Your task to perform on an android device: Open calendar and show me the fourth week of next month Image 0: 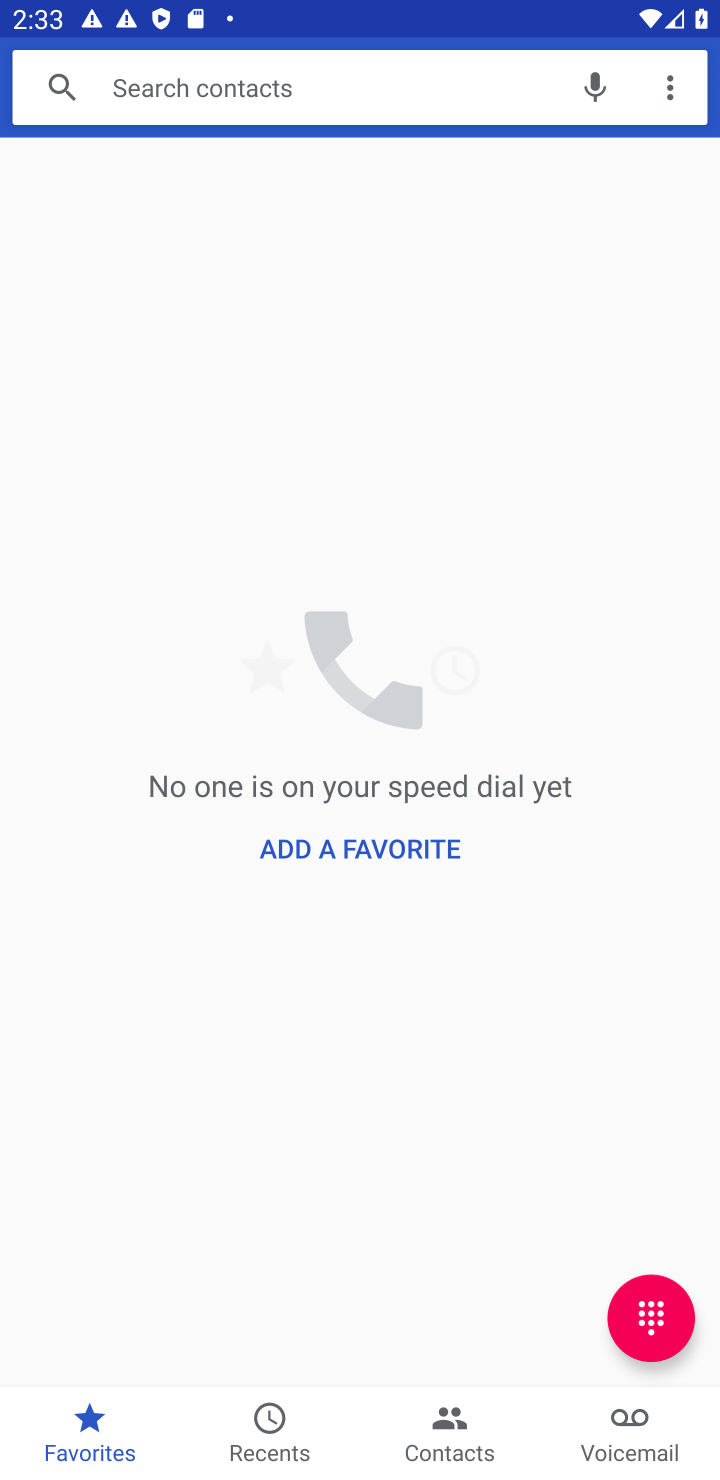
Step 0: press home button
Your task to perform on an android device: Open calendar and show me the fourth week of next month Image 1: 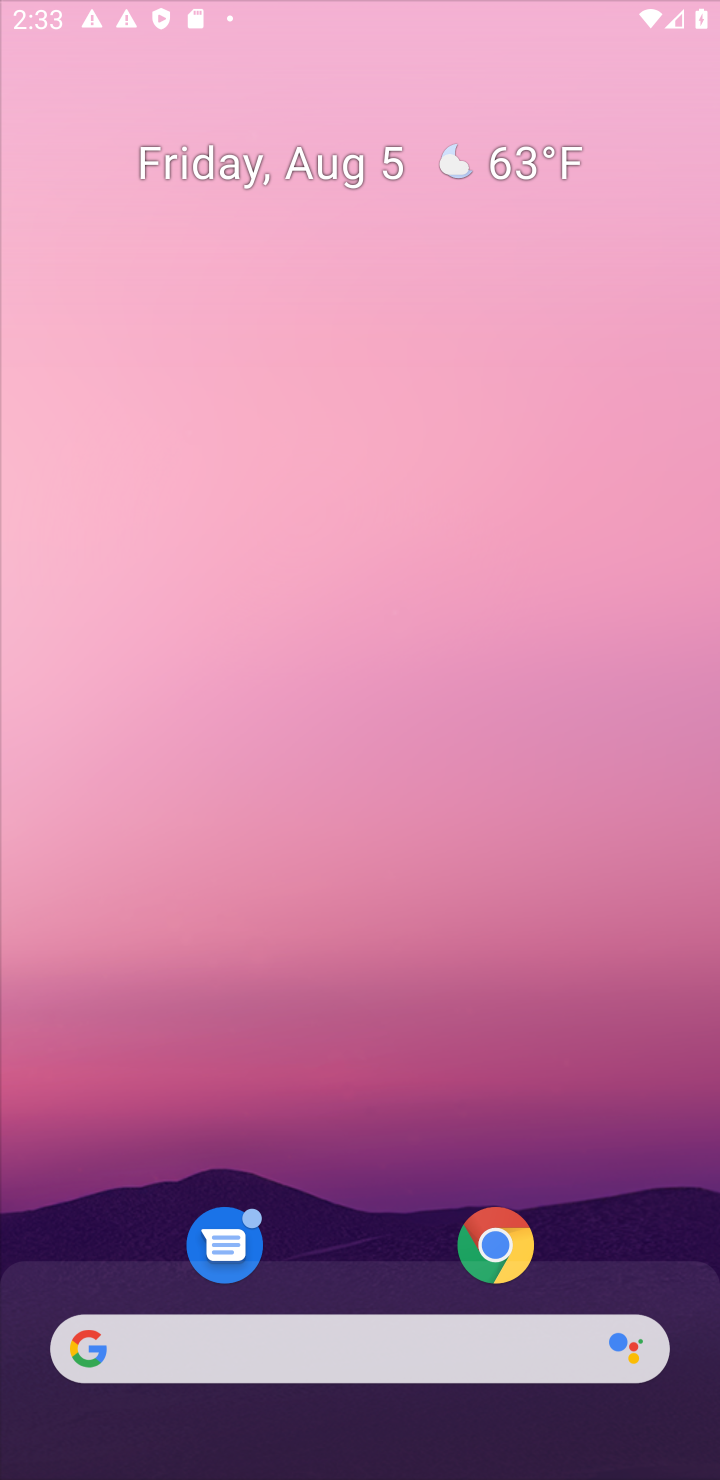
Step 1: drag from (379, 898) to (402, 287)
Your task to perform on an android device: Open calendar and show me the fourth week of next month Image 2: 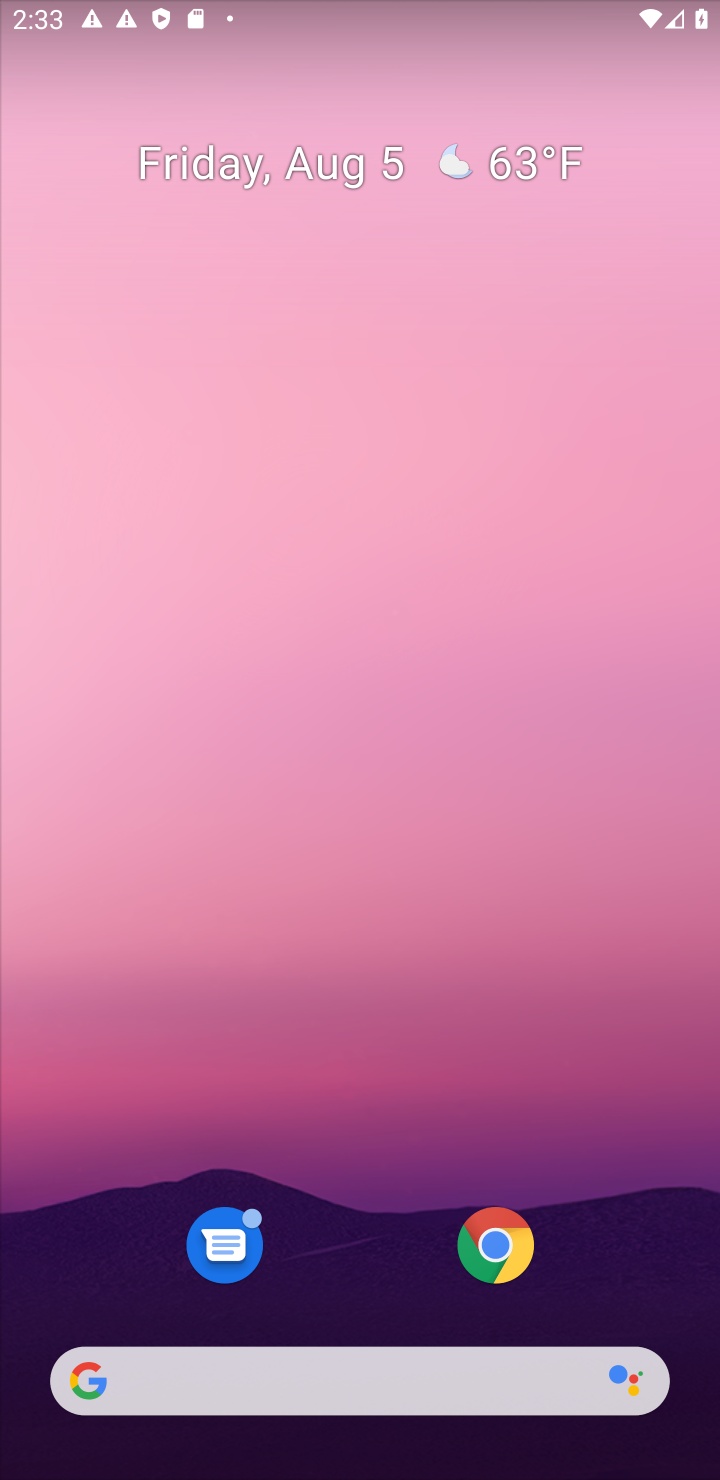
Step 2: drag from (384, 1233) to (421, 460)
Your task to perform on an android device: Open calendar and show me the fourth week of next month Image 3: 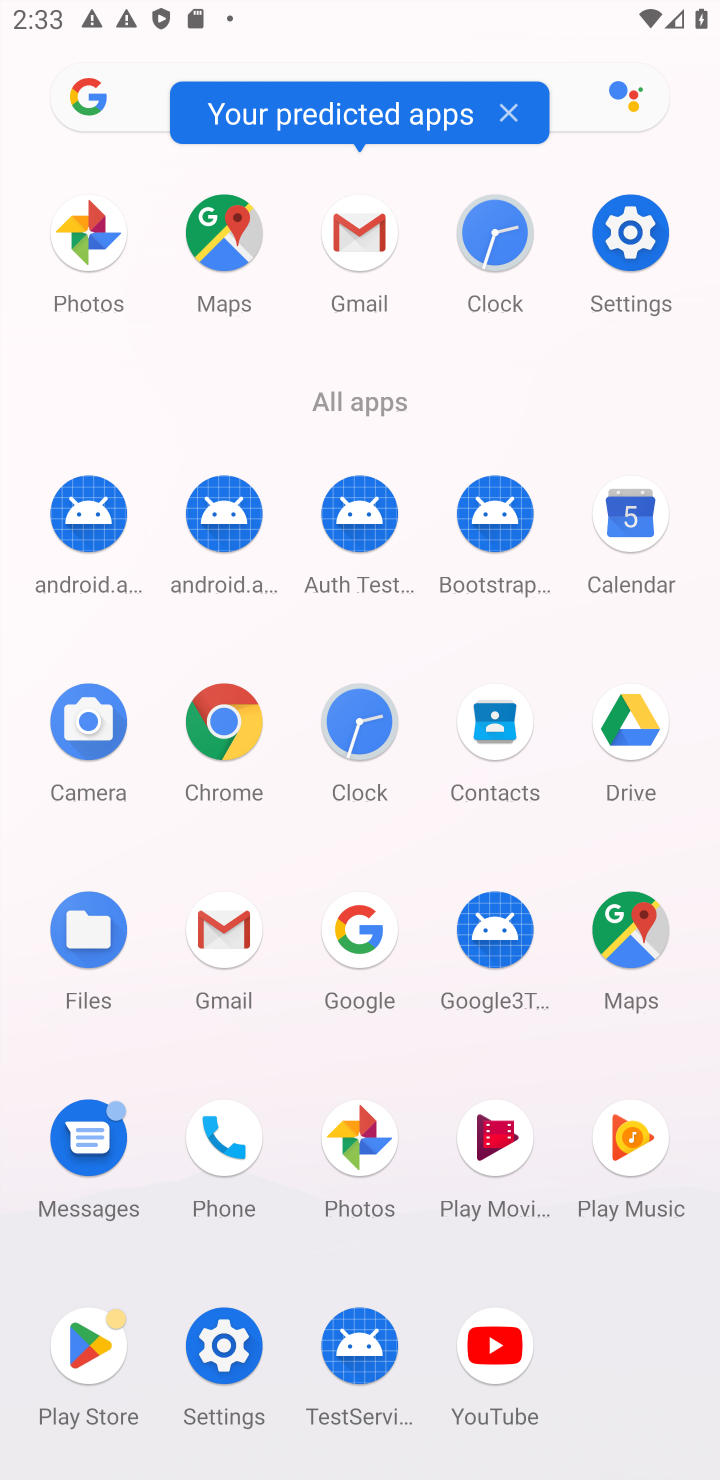
Step 3: click (640, 514)
Your task to perform on an android device: Open calendar and show me the fourth week of next month Image 4: 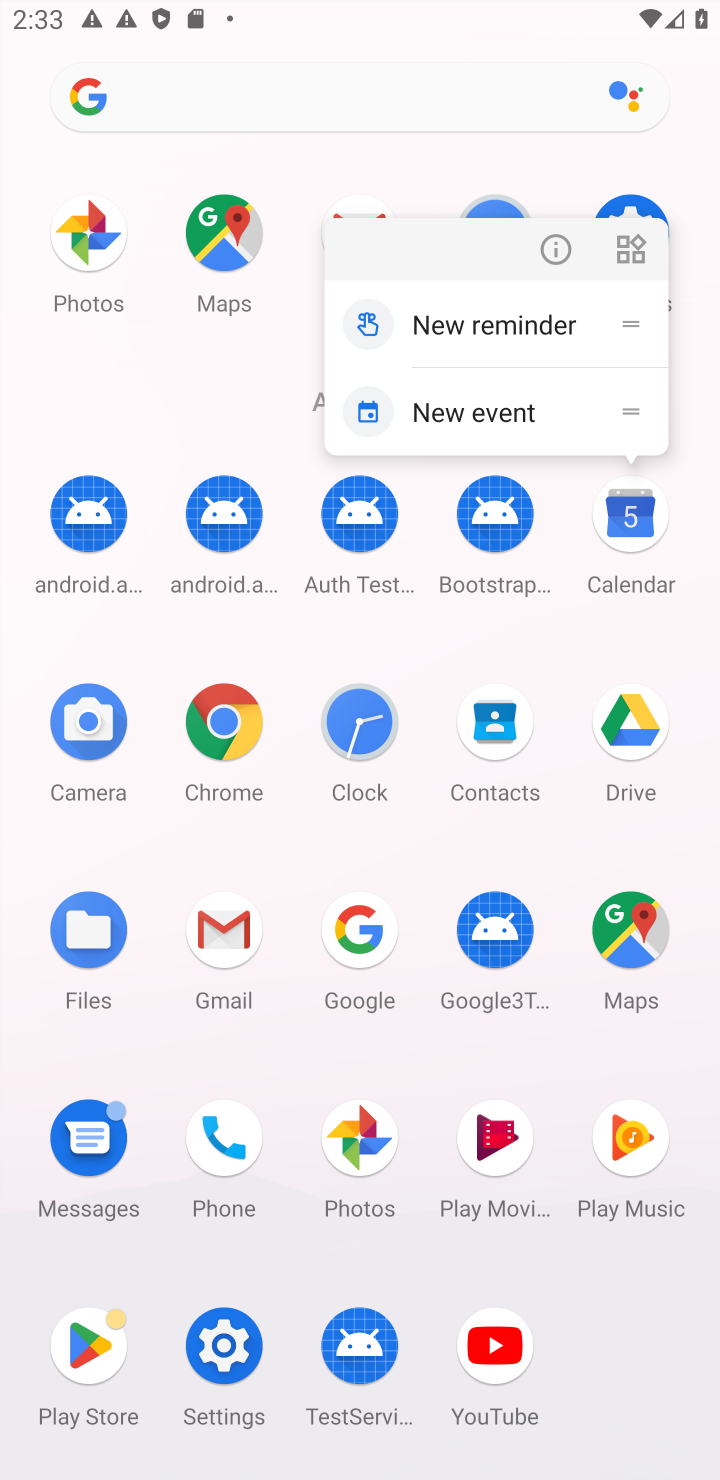
Step 4: click (624, 500)
Your task to perform on an android device: Open calendar and show me the fourth week of next month Image 5: 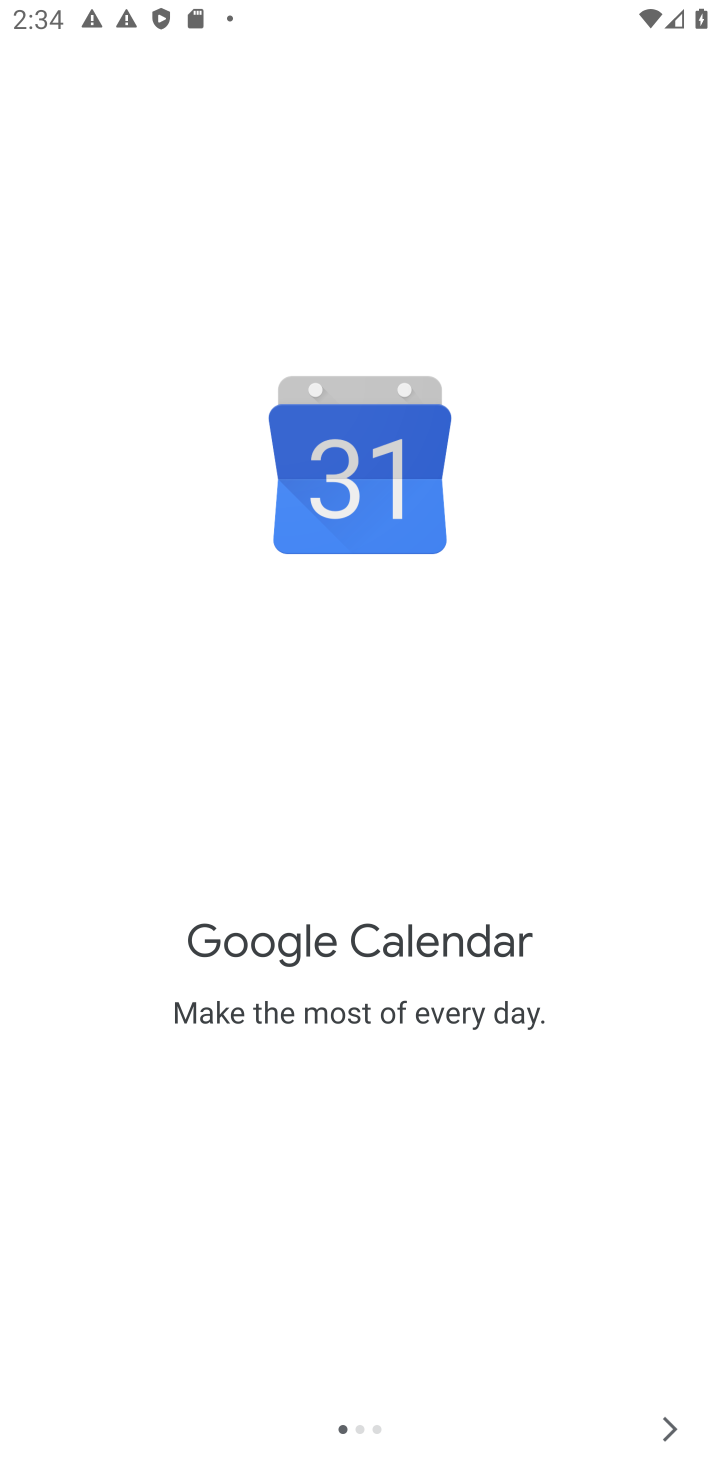
Step 5: click (695, 1422)
Your task to perform on an android device: Open calendar and show me the fourth week of next month Image 6: 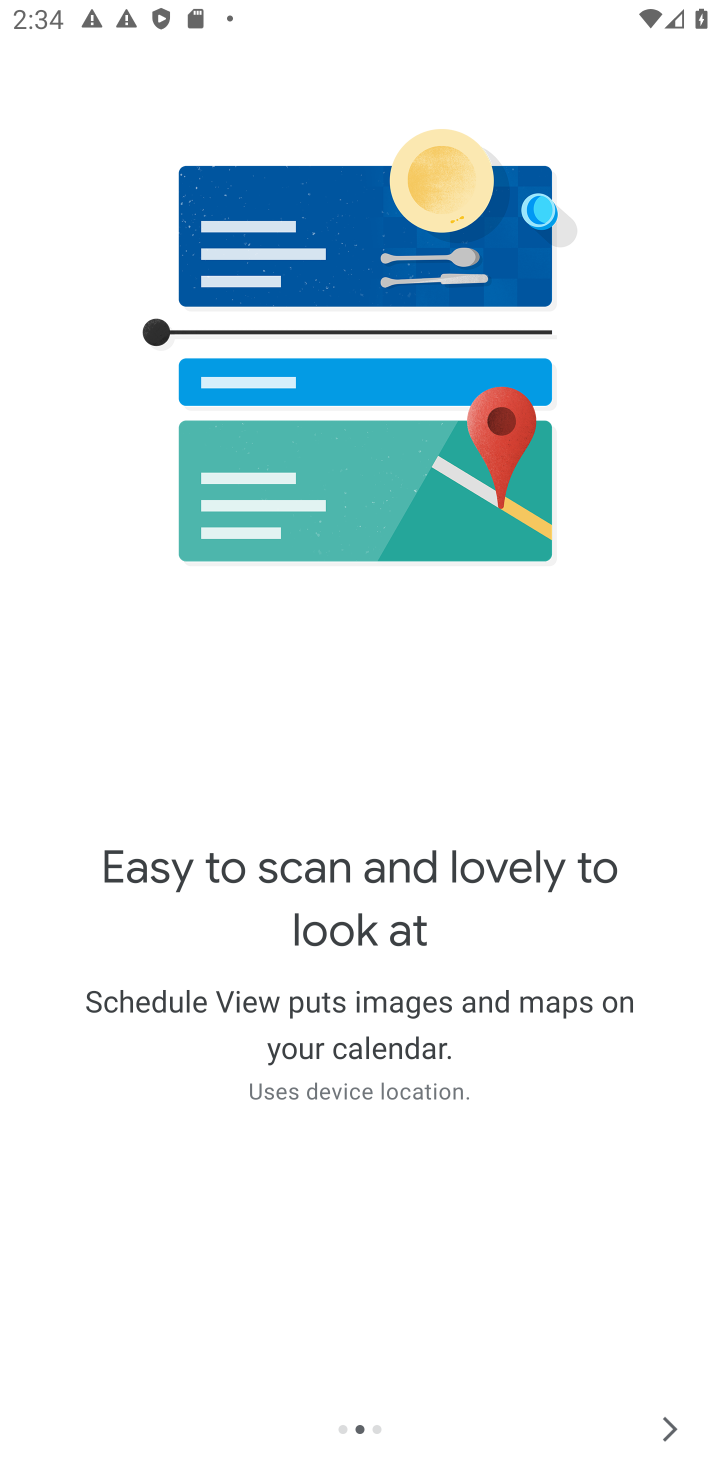
Step 6: click (647, 1420)
Your task to perform on an android device: Open calendar and show me the fourth week of next month Image 7: 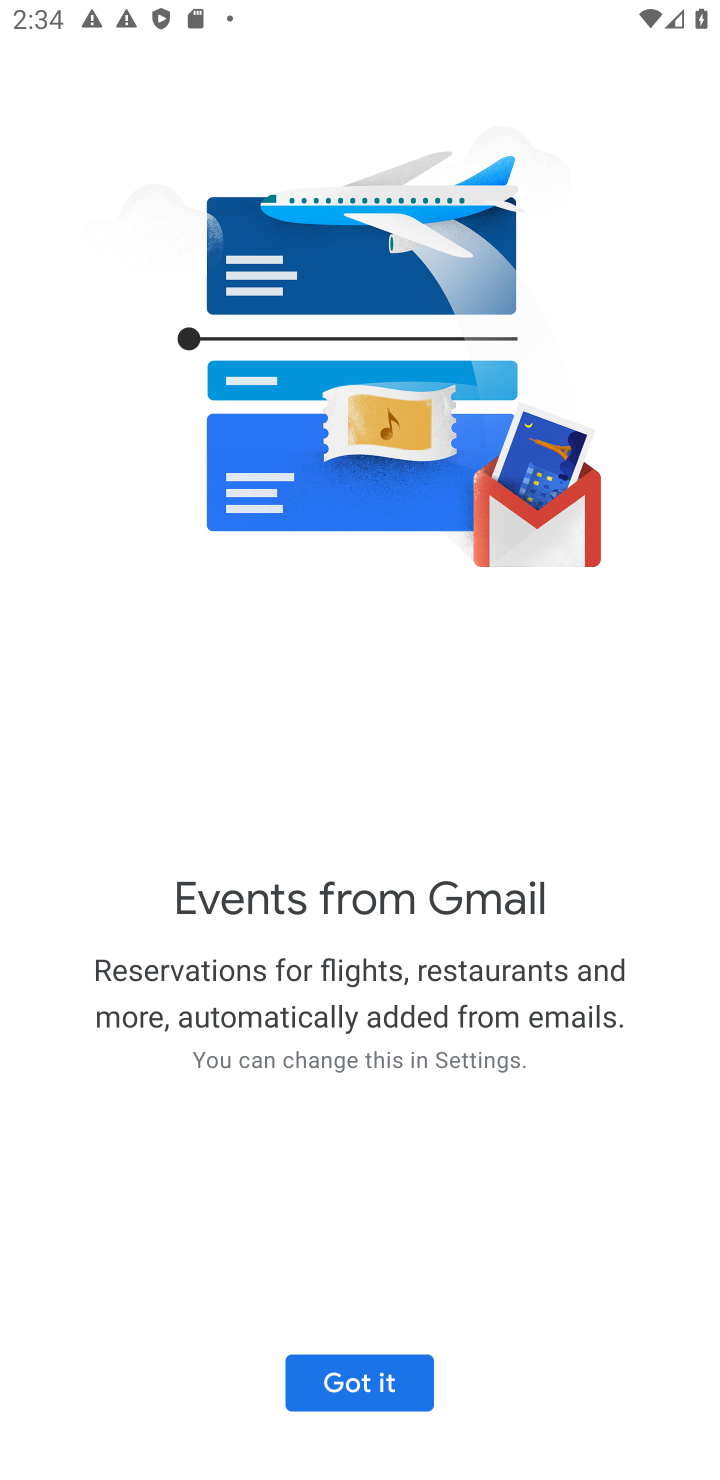
Step 7: click (651, 1420)
Your task to perform on an android device: Open calendar and show me the fourth week of next month Image 8: 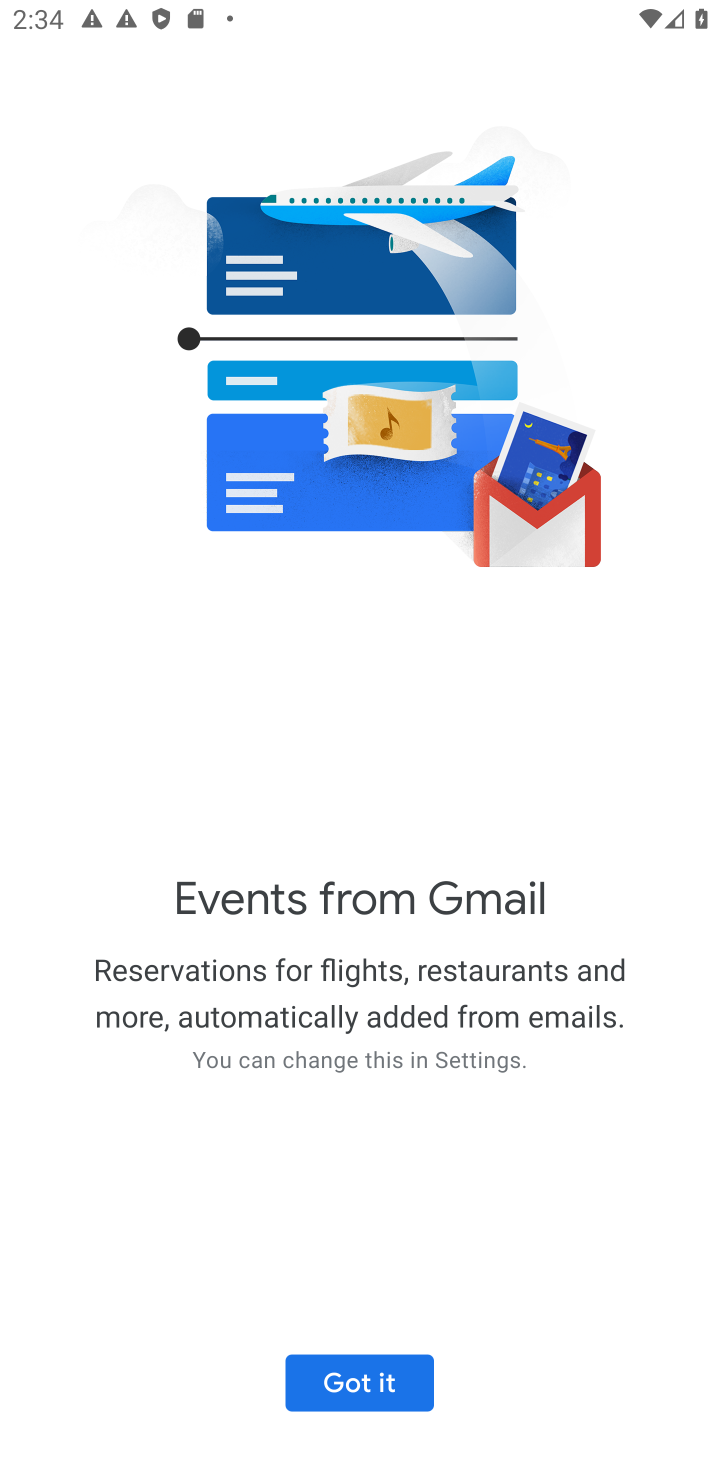
Step 8: click (335, 1377)
Your task to perform on an android device: Open calendar and show me the fourth week of next month Image 9: 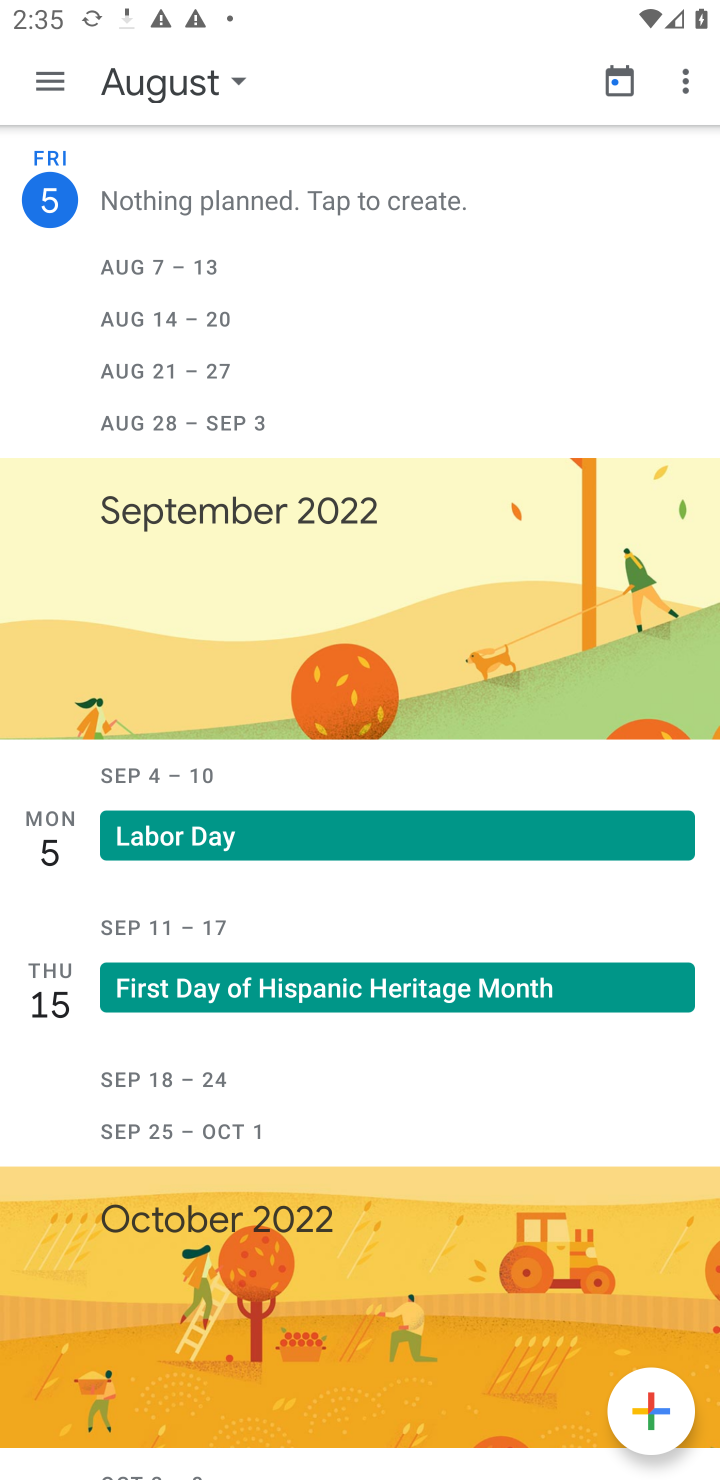
Step 9: click (64, 59)
Your task to perform on an android device: Open calendar and show me the fourth week of next month Image 10: 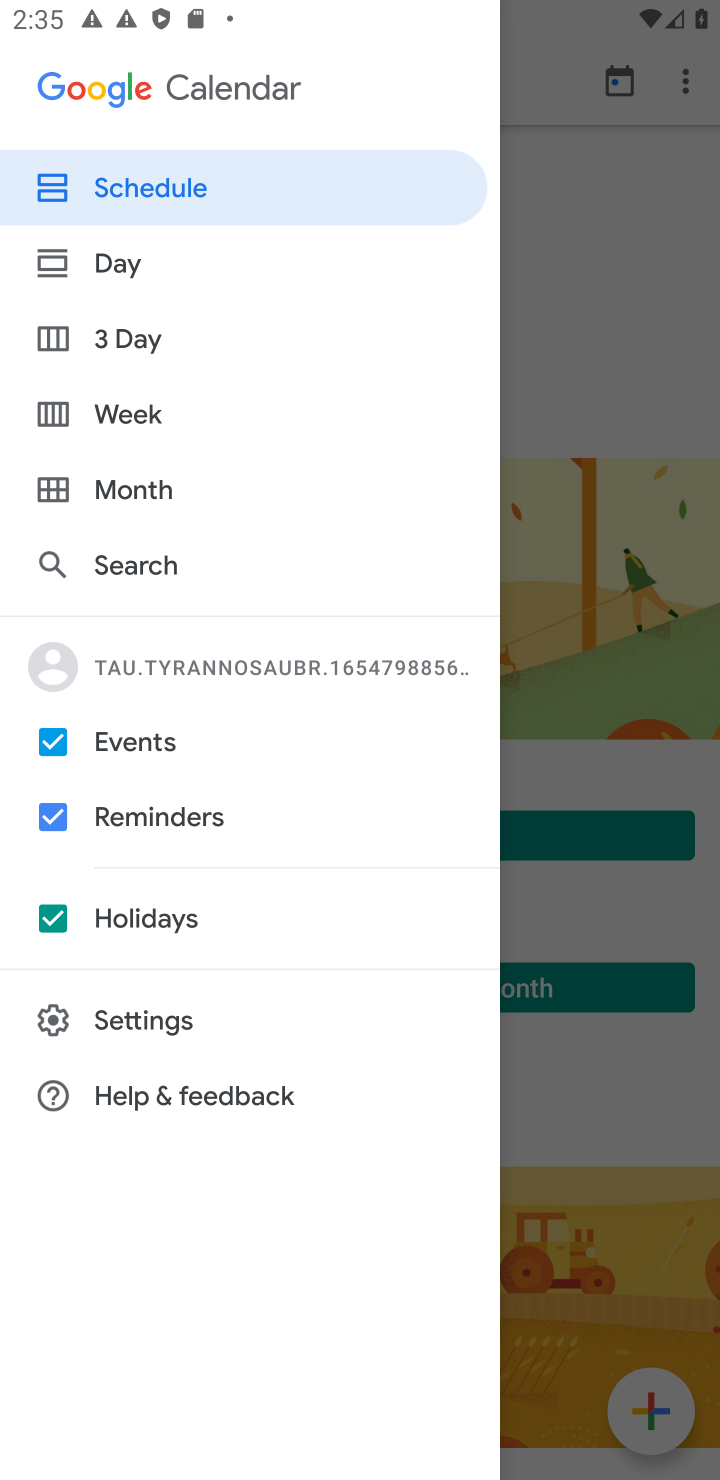
Step 10: click (142, 506)
Your task to perform on an android device: Open calendar and show me the fourth week of next month Image 11: 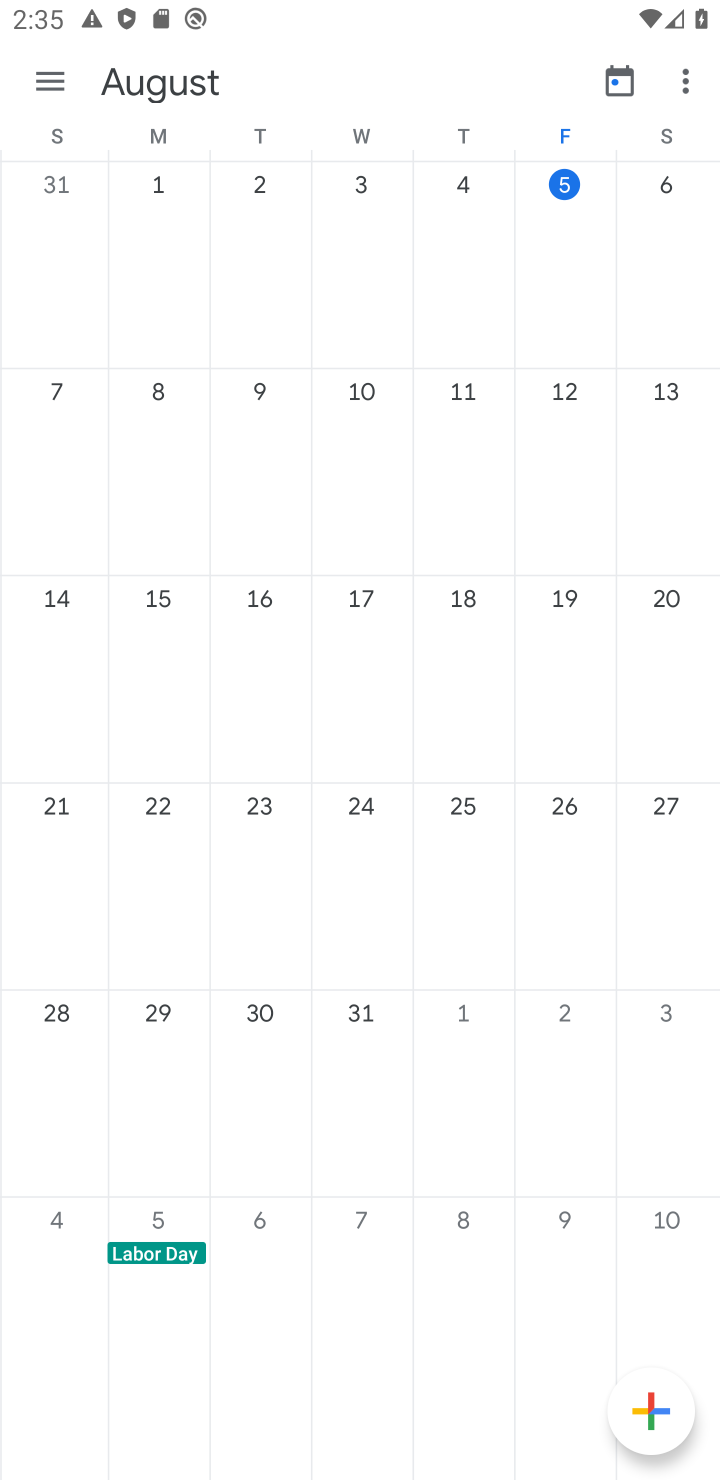
Step 11: task complete